Your task to perform on an android device: Open settings Image 0: 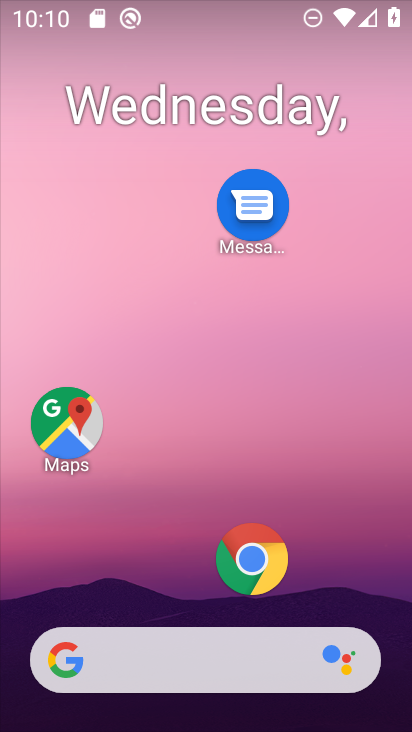
Step 0: drag from (326, 523) to (360, 87)
Your task to perform on an android device: Open settings Image 1: 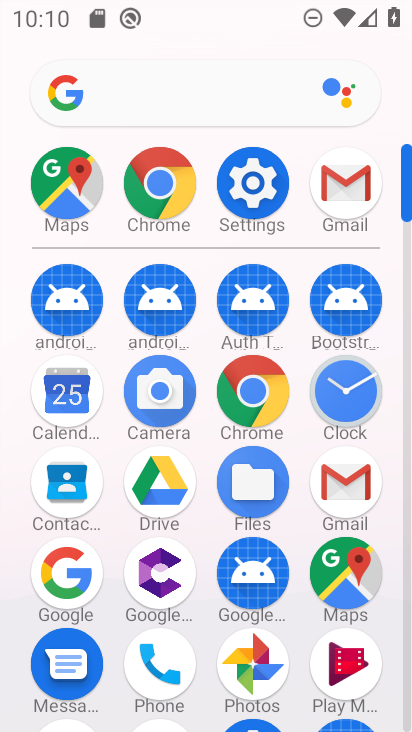
Step 1: click (263, 178)
Your task to perform on an android device: Open settings Image 2: 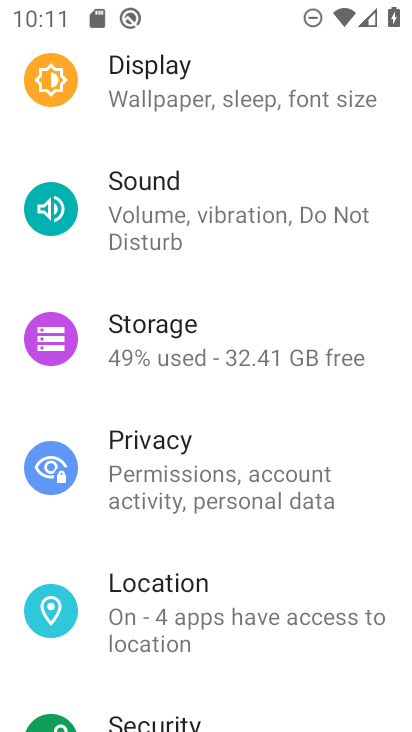
Step 2: task complete